Your task to perform on an android device: refresh tabs in the chrome app Image 0: 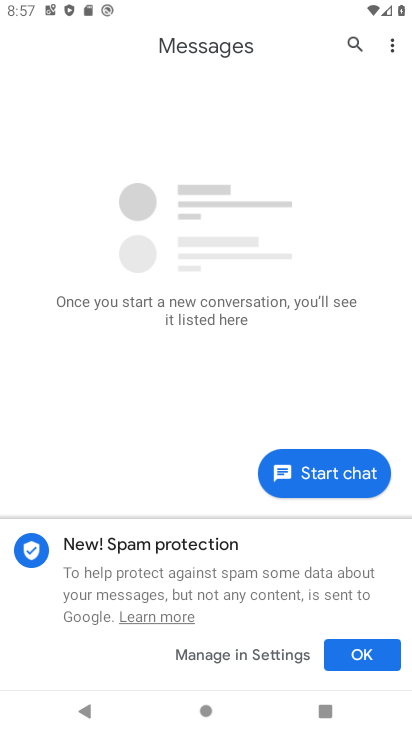
Step 0: press home button
Your task to perform on an android device: refresh tabs in the chrome app Image 1: 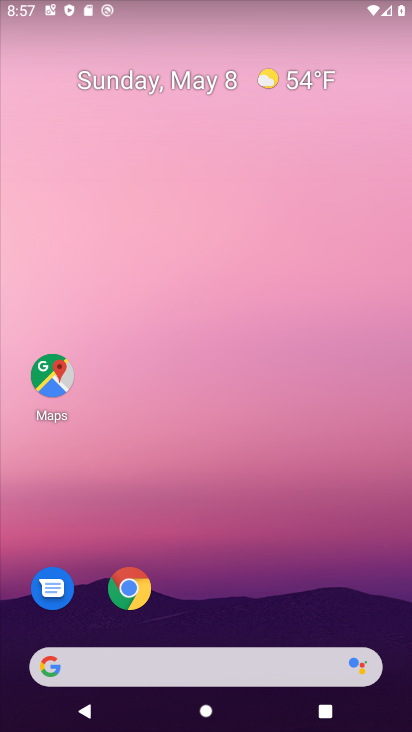
Step 1: click (129, 582)
Your task to perform on an android device: refresh tabs in the chrome app Image 2: 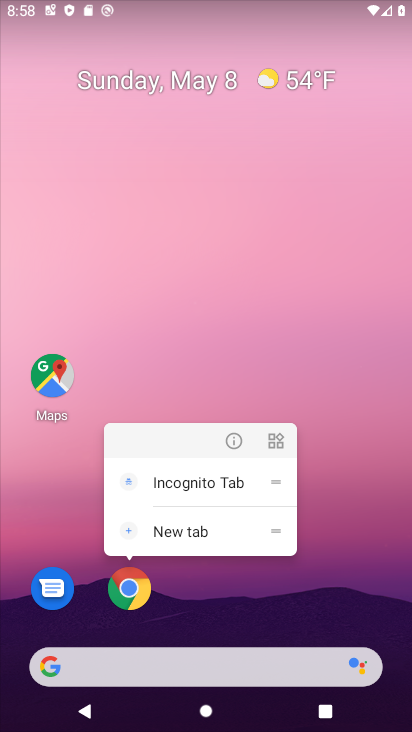
Step 2: click (233, 439)
Your task to perform on an android device: refresh tabs in the chrome app Image 3: 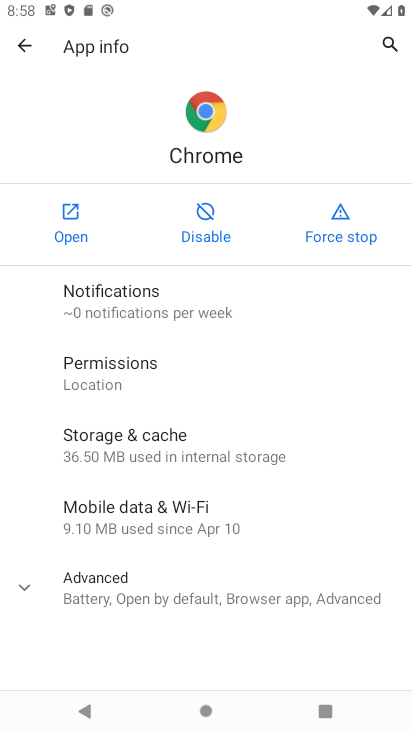
Step 3: click (83, 222)
Your task to perform on an android device: refresh tabs in the chrome app Image 4: 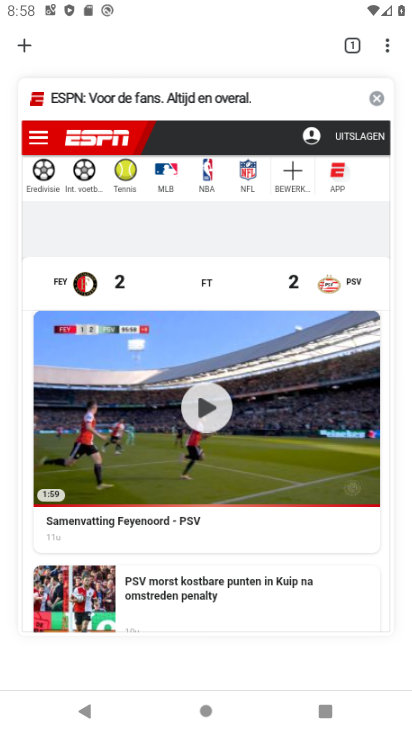
Step 4: click (383, 48)
Your task to perform on an android device: refresh tabs in the chrome app Image 5: 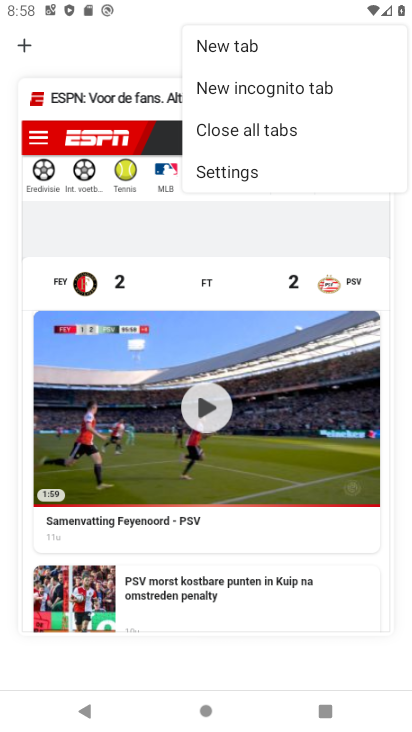
Step 5: click (200, 347)
Your task to perform on an android device: refresh tabs in the chrome app Image 6: 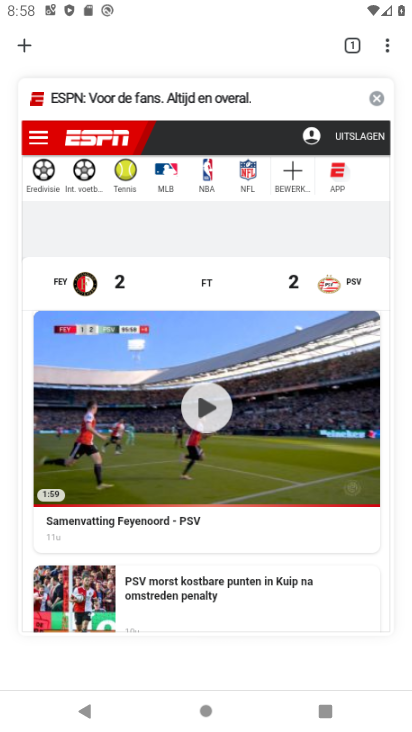
Step 6: click (200, 347)
Your task to perform on an android device: refresh tabs in the chrome app Image 7: 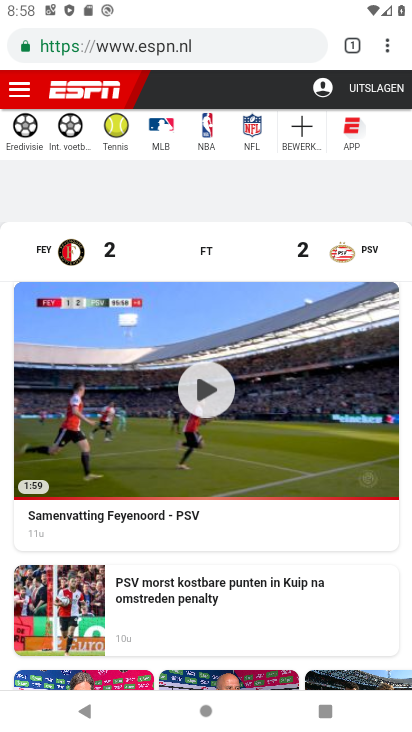
Step 7: click (383, 44)
Your task to perform on an android device: refresh tabs in the chrome app Image 8: 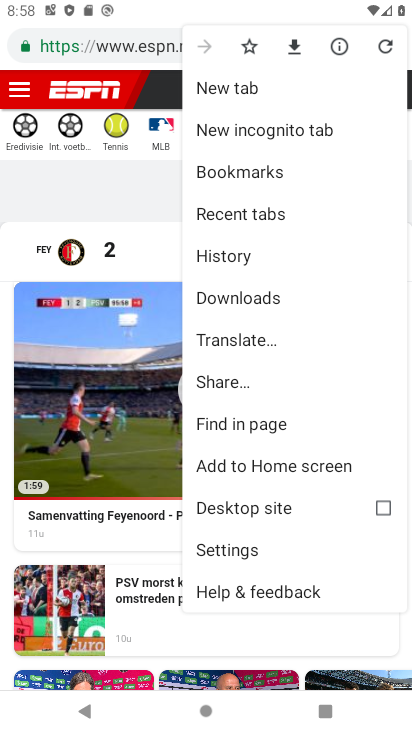
Step 8: click (386, 45)
Your task to perform on an android device: refresh tabs in the chrome app Image 9: 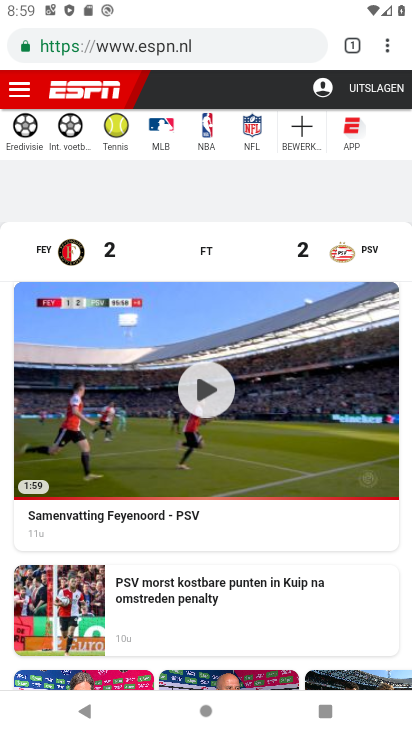
Step 9: task complete